Your task to perform on an android device: install app "Truecaller" Image 0: 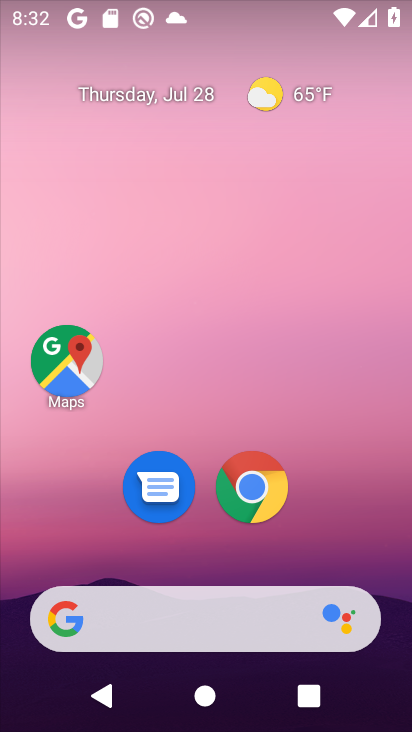
Step 0: drag from (288, 593) to (273, 310)
Your task to perform on an android device: install app "Truecaller" Image 1: 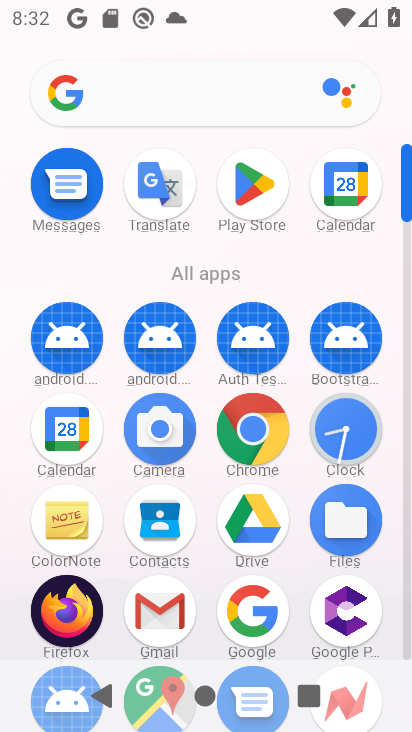
Step 1: click (253, 196)
Your task to perform on an android device: install app "Truecaller" Image 2: 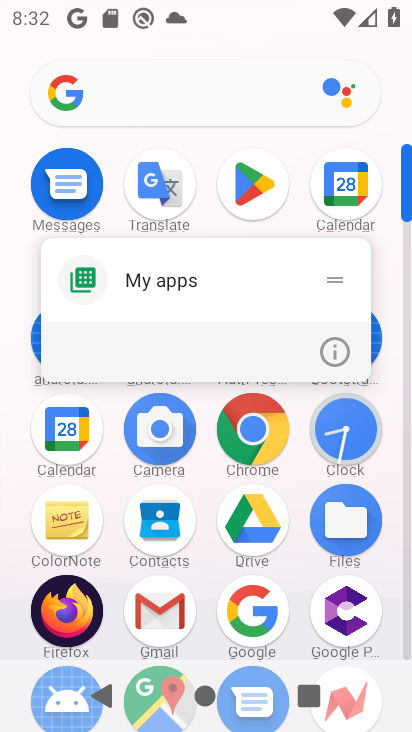
Step 2: click (248, 206)
Your task to perform on an android device: install app "Truecaller" Image 3: 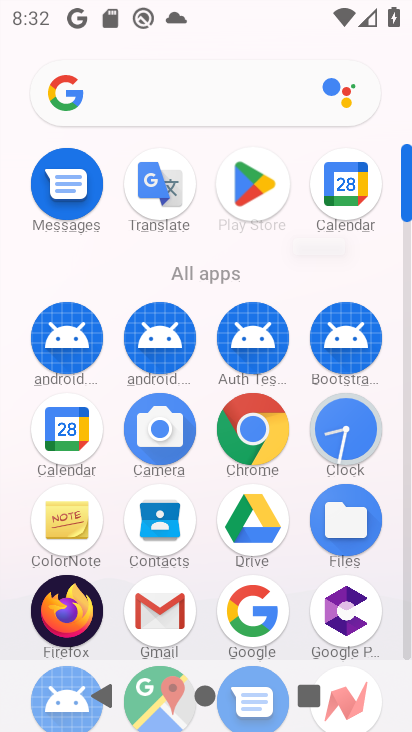
Step 3: click (248, 203)
Your task to perform on an android device: install app "Truecaller" Image 4: 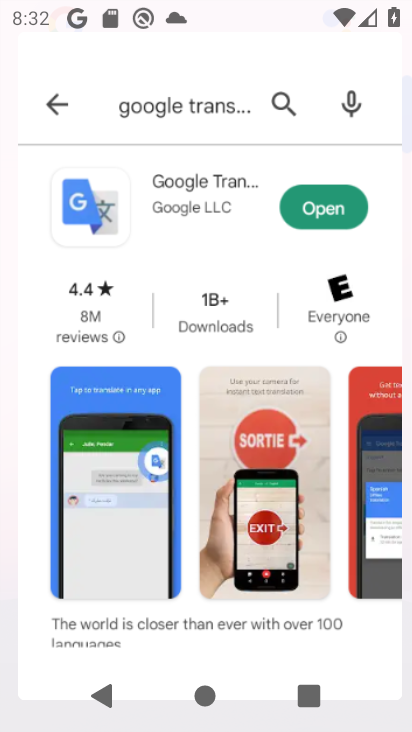
Step 4: click (248, 204)
Your task to perform on an android device: install app "Truecaller" Image 5: 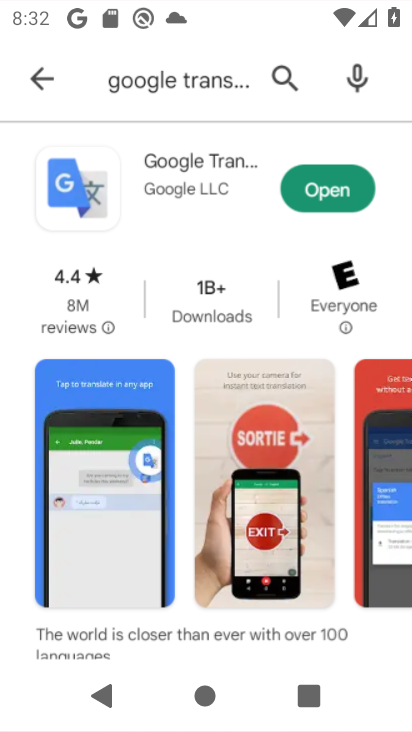
Step 5: click (248, 204)
Your task to perform on an android device: install app "Truecaller" Image 6: 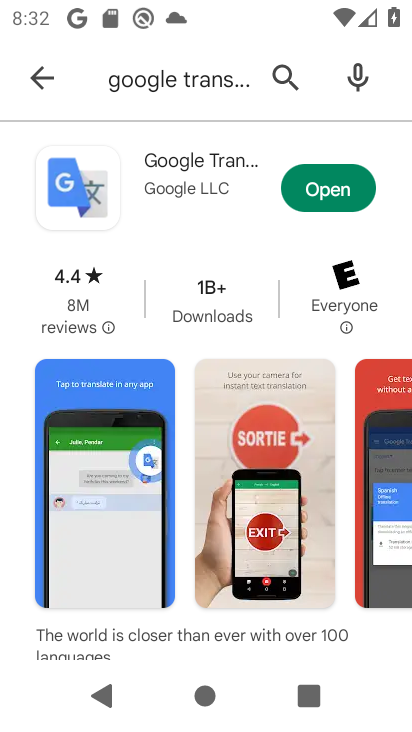
Step 6: click (248, 207)
Your task to perform on an android device: install app "Truecaller" Image 7: 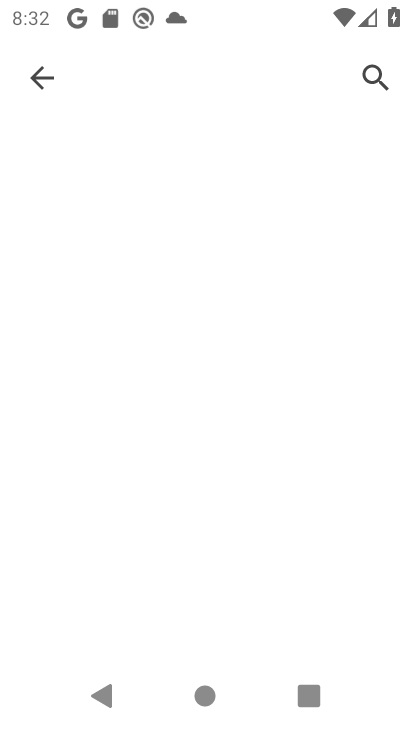
Step 7: click (34, 68)
Your task to perform on an android device: install app "Truecaller" Image 8: 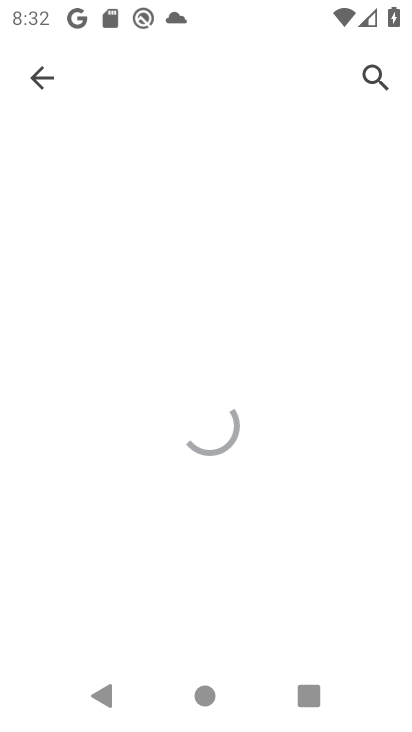
Step 8: click (33, 67)
Your task to perform on an android device: install app "Truecaller" Image 9: 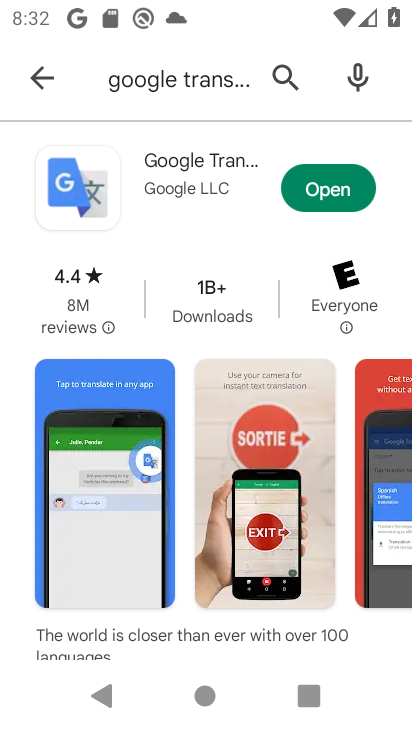
Step 9: click (103, 78)
Your task to perform on an android device: install app "Truecaller" Image 10: 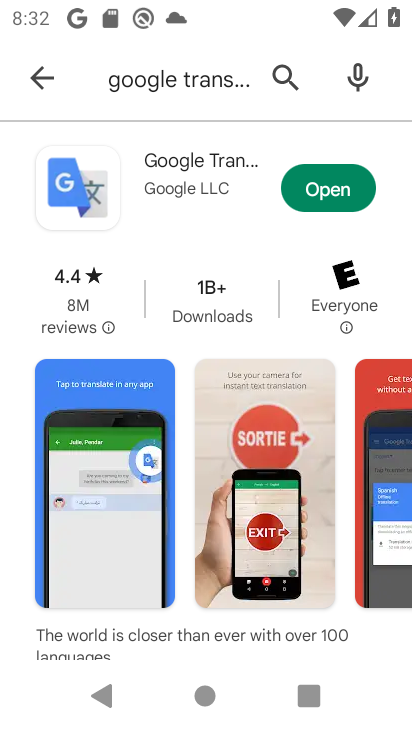
Step 10: click (112, 82)
Your task to perform on an android device: install app "Truecaller" Image 11: 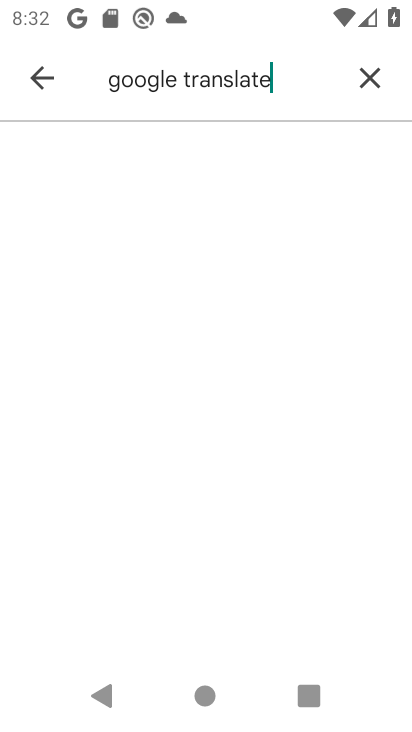
Step 11: click (113, 83)
Your task to perform on an android device: install app "Truecaller" Image 12: 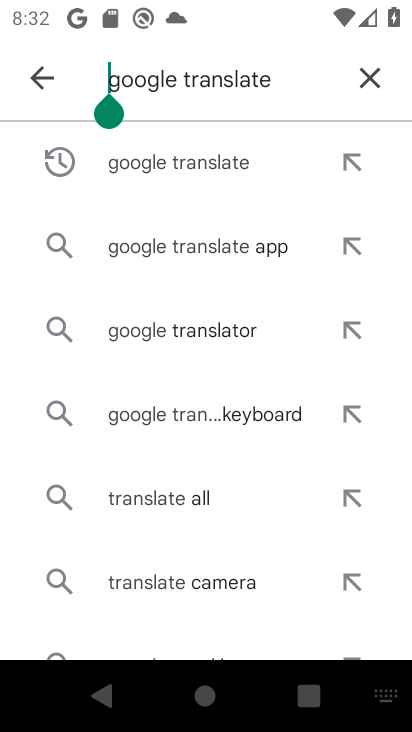
Step 12: click (362, 78)
Your task to perform on an android device: install app "Truecaller" Image 13: 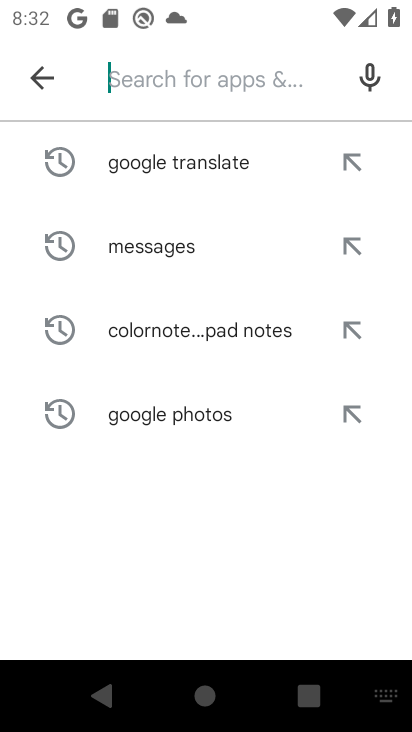
Step 13: type "truecaller"
Your task to perform on an android device: install app "Truecaller" Image 14: 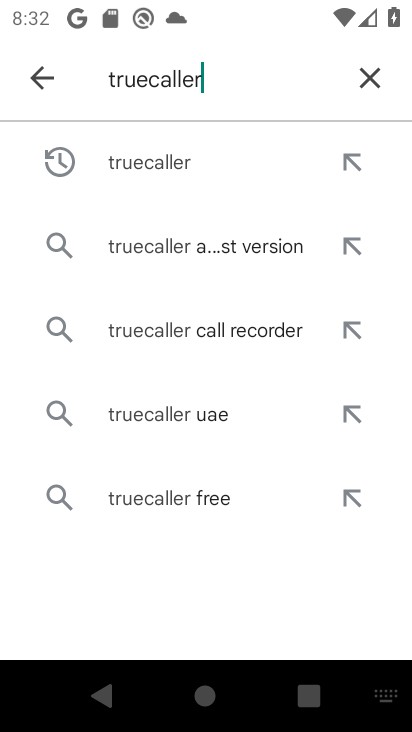
Step 14: click (339, 159)
Your task to perform on an android device: install app "Truecaller" Image 15: 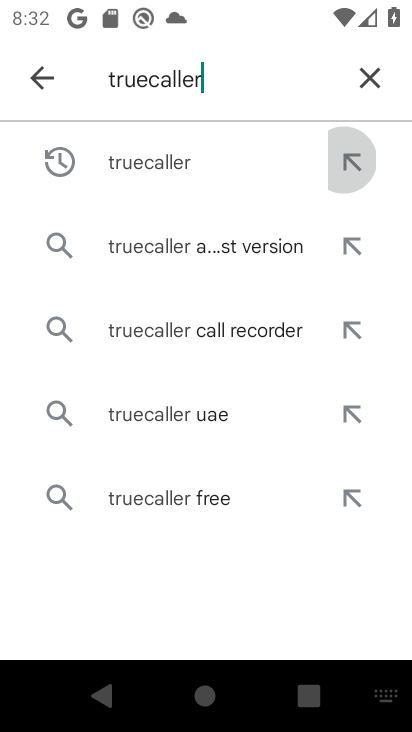
Step 15: click (339, 159)
Your task to perform on an android device: install app "Truecaller" Image 16: 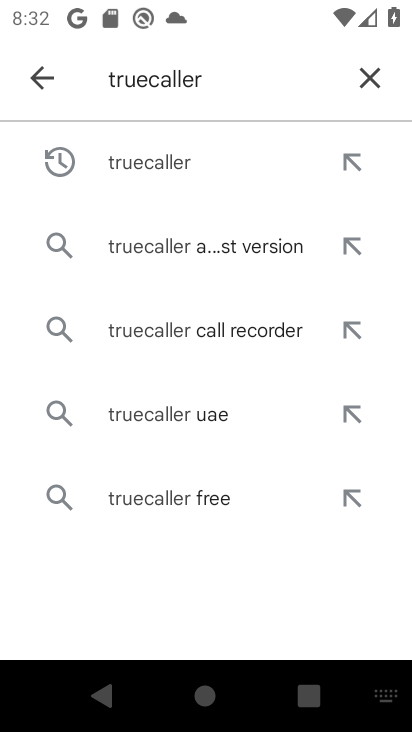
Step 16: click (156, 164)
Your task to perform on an android device: install app "Truecaller" Image 17: 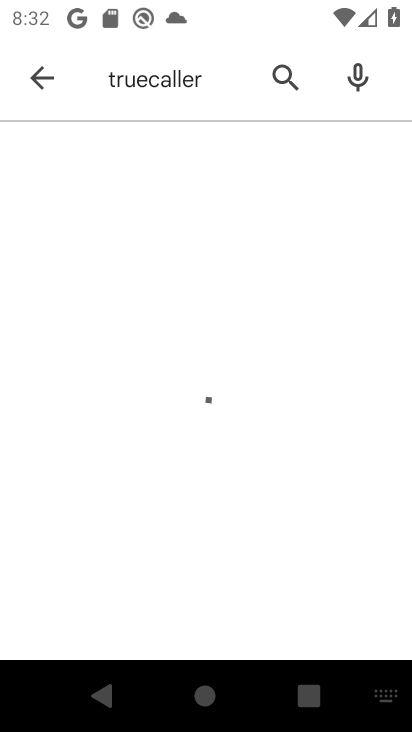
Step 17: click (156, 164)
Your task to perform on an android device: install app "Truecaller" Image 18: 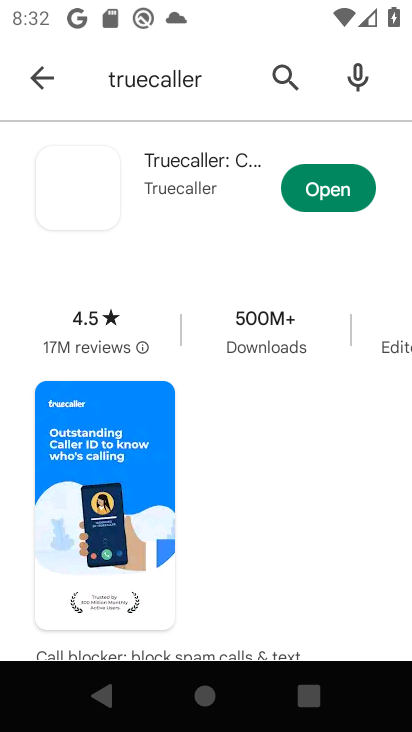
Step 18: click (156, 164)
Your task to perform on an android device: install app "Truecaller" Image 19: 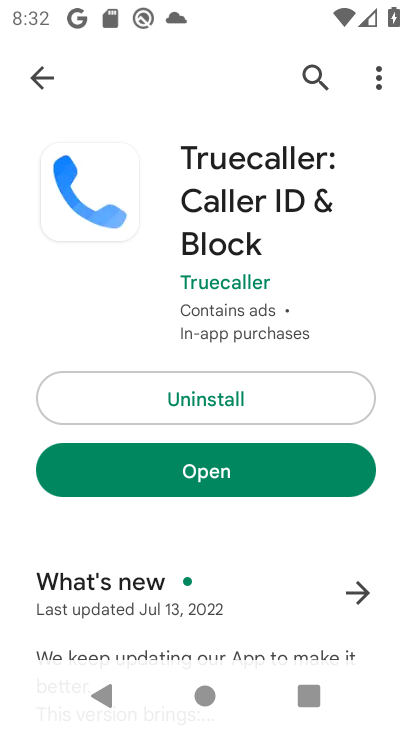
Step 19: click (156, 164)
Your task to perform on an android device: install app "Truecaller" Image 20: 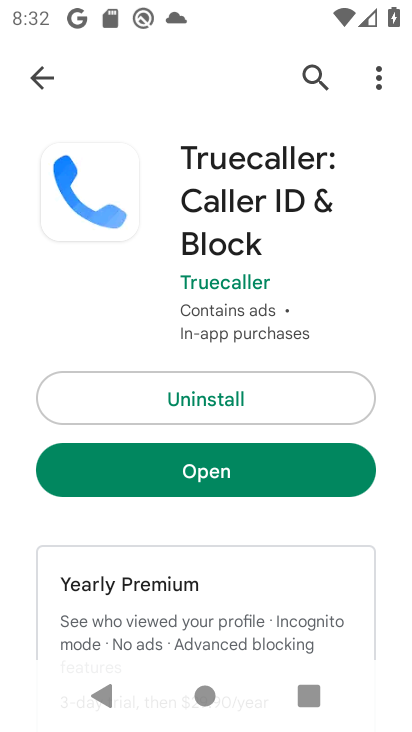
Step 20: click (236, 477)
Your task to perform on an android device: install app "Truecaller" Image 21: 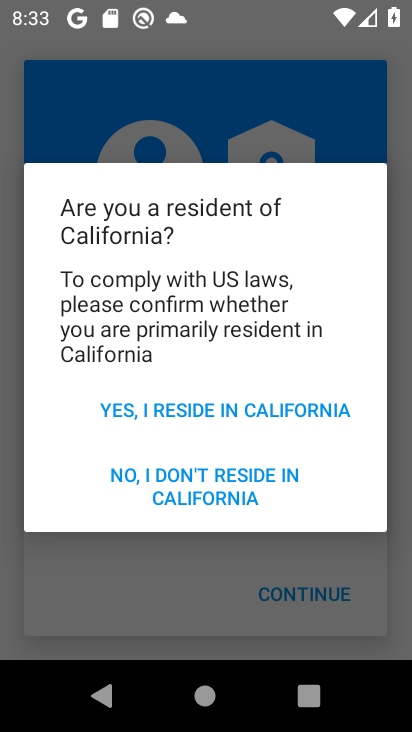
Step 21: click (210, 406)
Your task to perform on an android device: install app "Truecaller" Image 22: 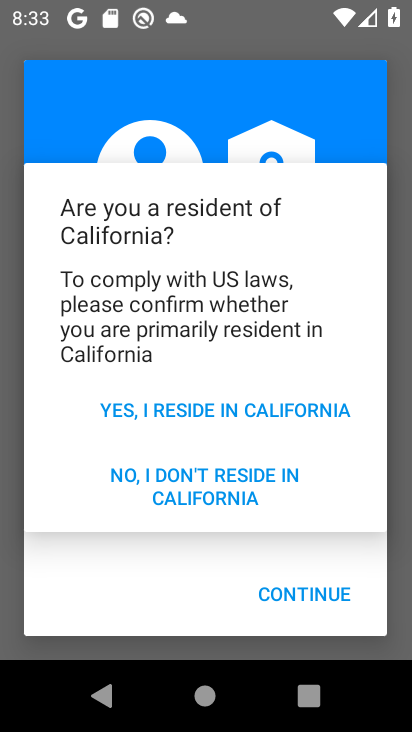
Step 22: click (195, 472)
Your task to perform on an android device: install app "Truecaller" Image 23: 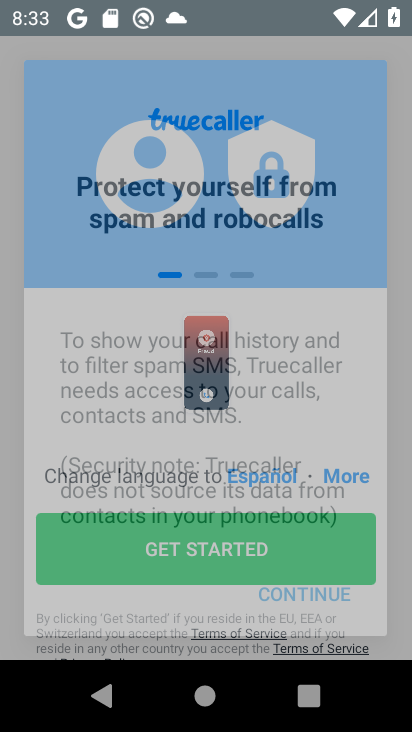
Step 23: click (308, 115)
Your task to perform on an android device: install app "Truecaller" Image 24: 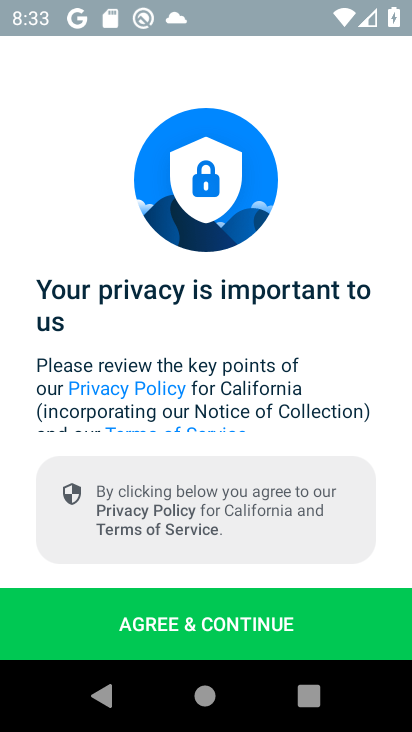
Step 24: press back button
Your task to perform on an android device: install app "Truecaller" Image 25: 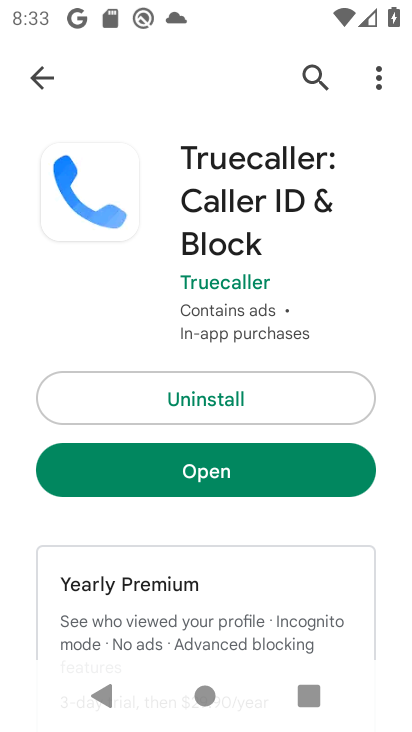
Step 25: click (219, 465)
Your task to perform on an android device: install app "Truecaller" Image 26: 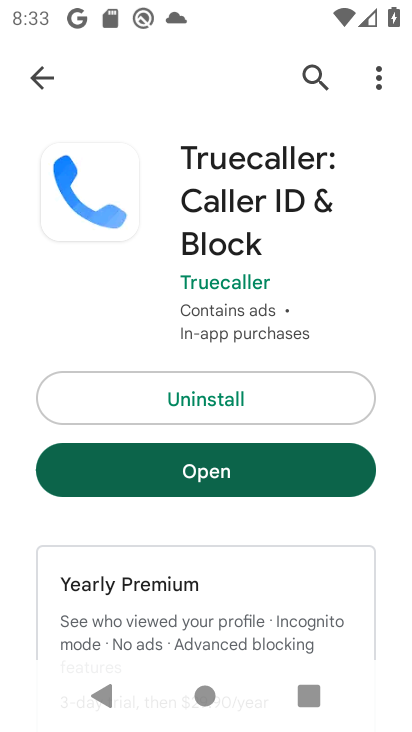
Step 26: click (228, 469)
Your task to perform on an android device: install app "Truecaller" Image 27: 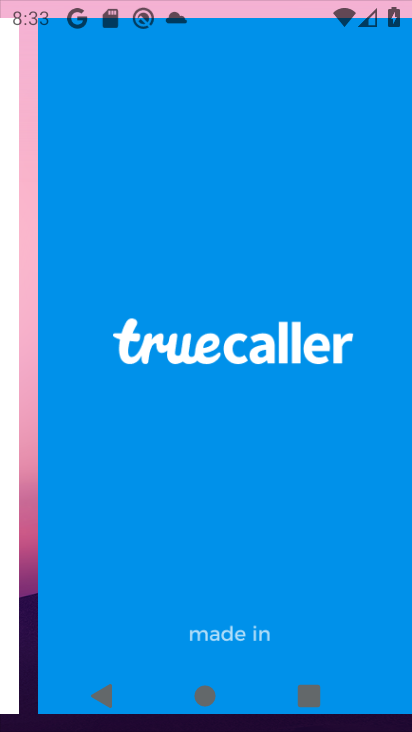
Step 27: click (227, 470)
Your task to perform on an android device: install app "Truecaller" Image 28: 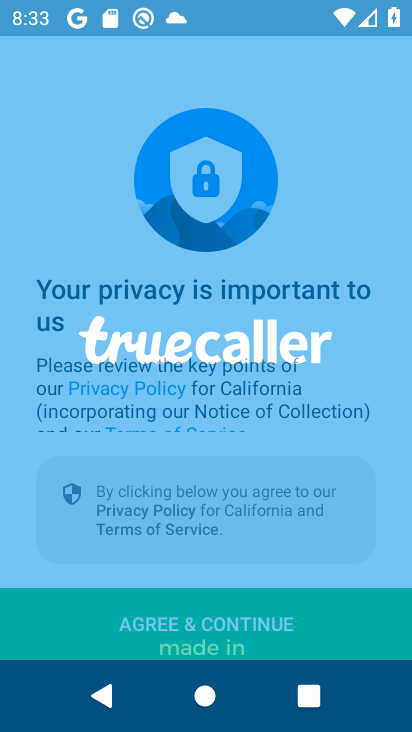
Step 28: click (228, 471)
Your task to perform on an android device: install app "Truecaller" Image 29: 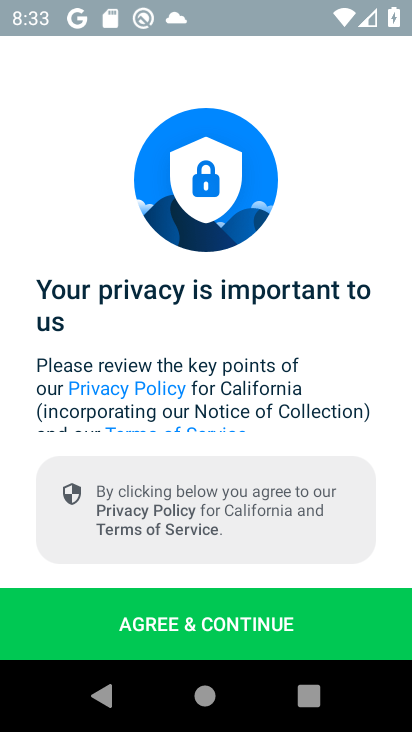
Step 29: click (202, 626)
Your task to perform on an android device: install app "Truecaller" Image 30: 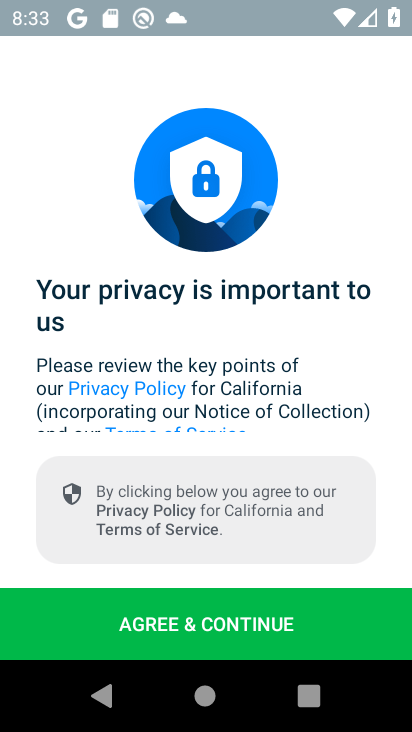
Step 30: click (206, 623)
Your task to perform on an android device: install app "Truecaller" Image 31: 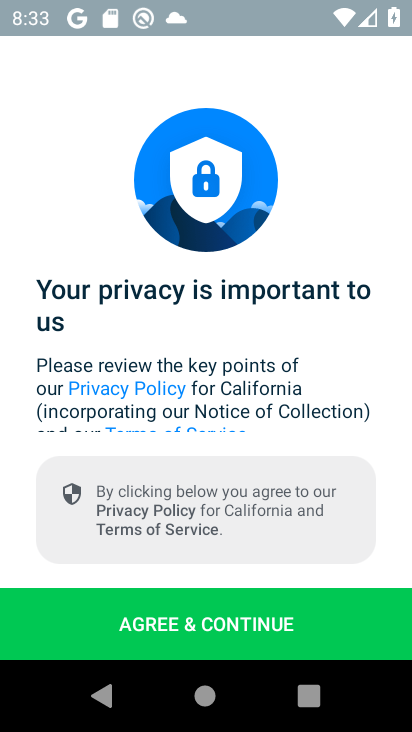
Step 31: click (208, 624)
Your task to perform on an android device: install app "Truecaller" Image 32: 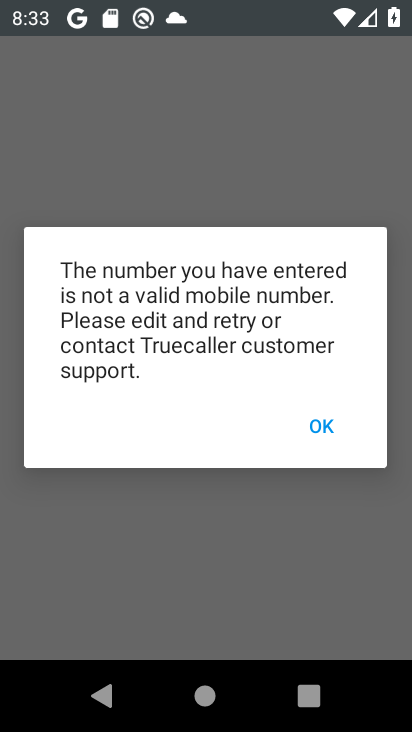
Step 32: click (329, 423)
Your task to perform on an android device: install app "Truecaller" Image 33: 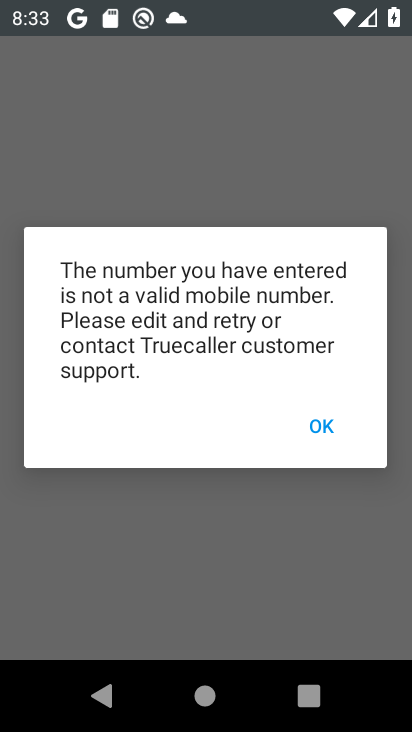
Step 33: click (327, 423)
Your task to perform on an android device: install app "Truecaller" Image 34: 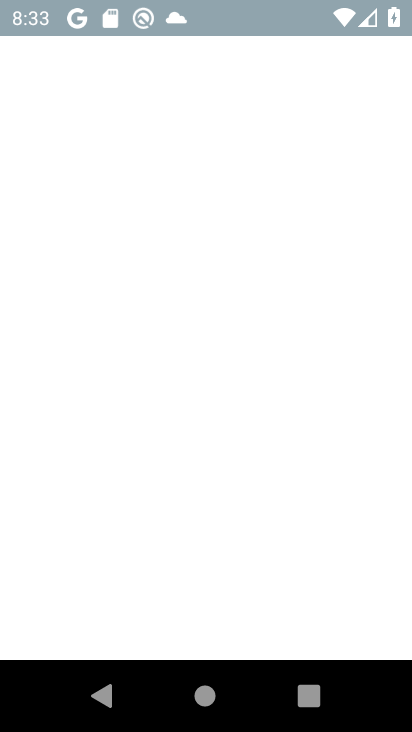
Step 34: click (326, 424)
Your task to perform on an android device: install app "Truecaller" Image 35: 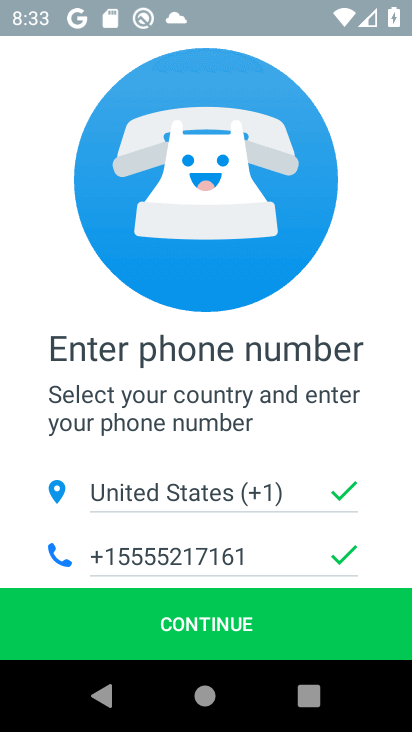
Step 35: click (233, 618)
Your task to perform on an android device: install app "Truecaller" Image 36: 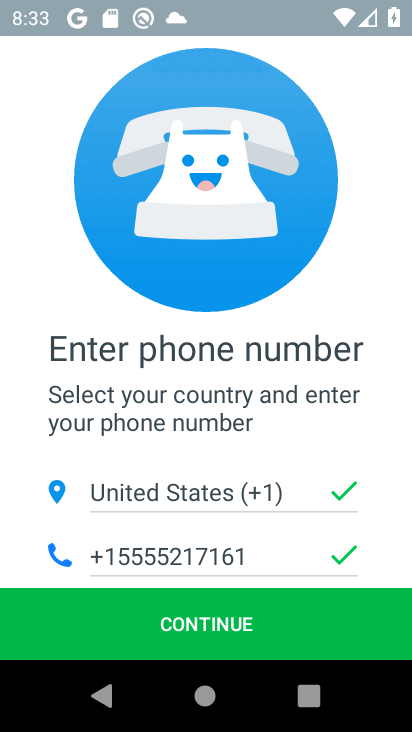
Step 36: click (231, 619)
Your task to perform on an android device: install app "Truecaller" Image 37: 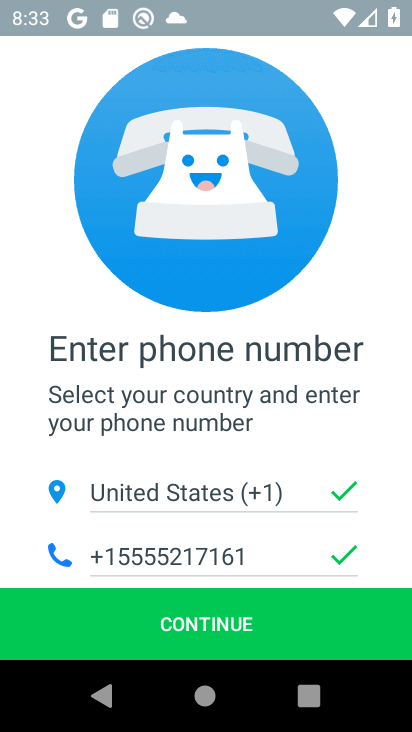
Step 37: click (269, 623)
Your task to perform on an android device: install app "Truecaller" Image 38: 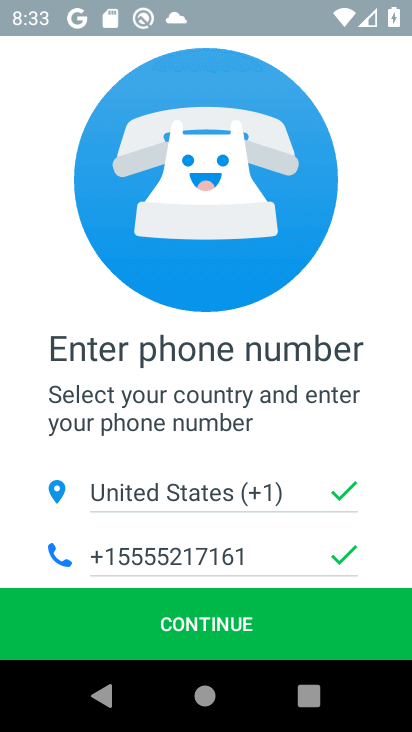
Step 38: click (268, 622)
Your task to perform on an android device: install app "Truecaller" Image 39: 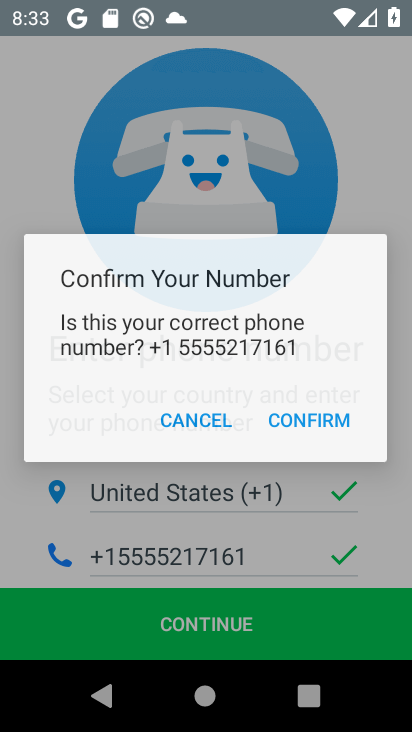
Step 39: click (268, 623)
Your task to perform on an android device: install app "Truecaller" Image 40: 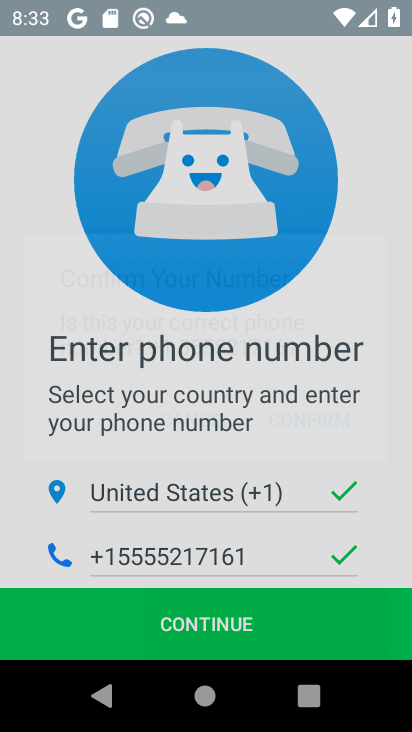
Step 40: click (268, 623)
Your task to perform on an android device: install app "Truecaller" Image 41: 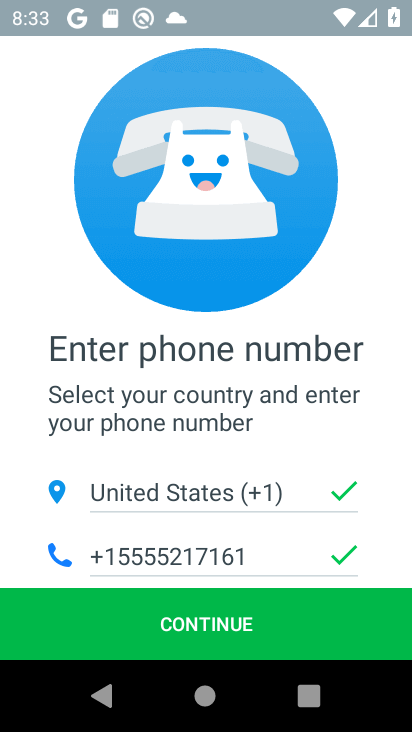
Step 41: click (268, 624)
Your task to perform on an android device: install app "Truecaller" Image 42: 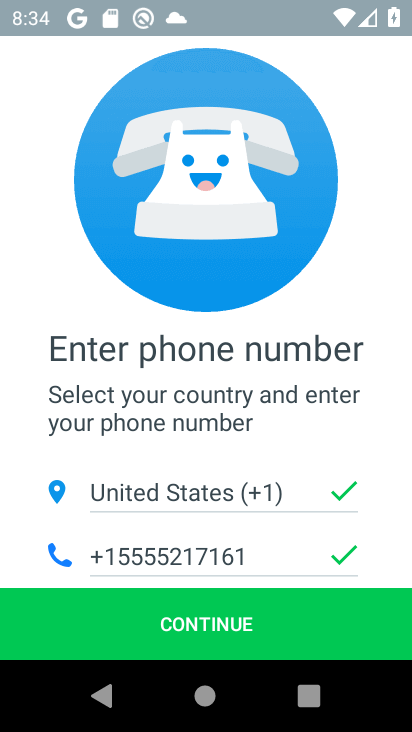
Step 42: click (216, 620)
Your task to perform on an android device: install app "Truecaller" Image 43: 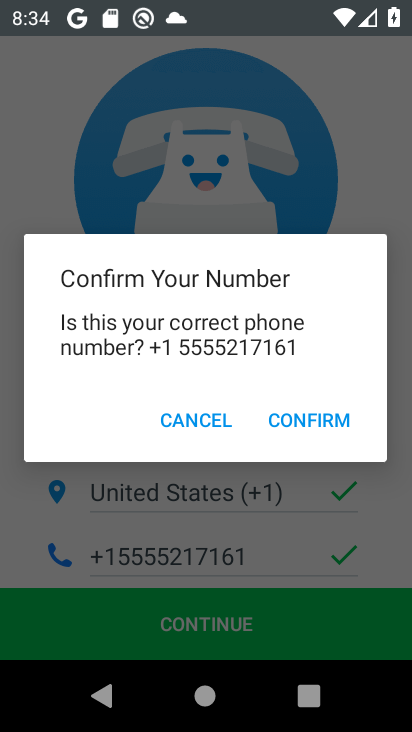
Step 43: click (310, 413)
Your task to perform on an android device: install app "Truecaller" Image 44: 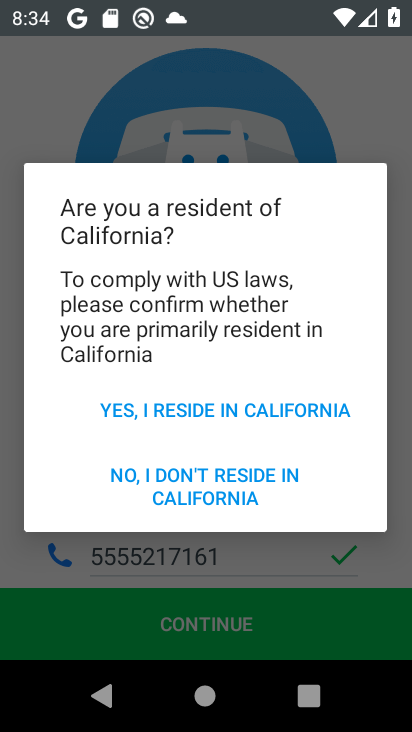
Step 44: click (230, 484)
Your task to perform on an android device: install app "Truecaller" Image 45: 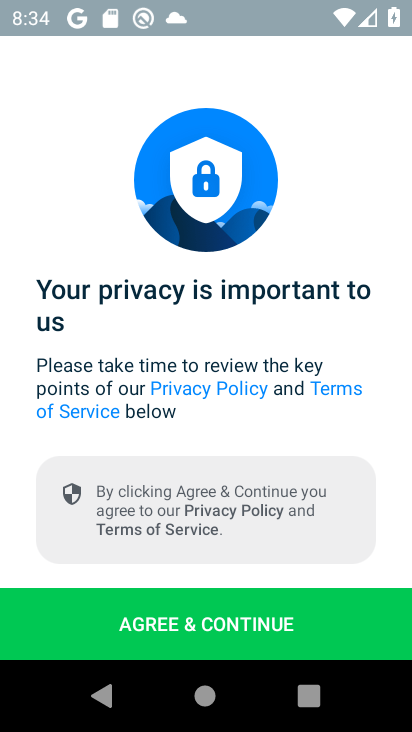
Step 45: click (257, 619)
Your task to perform on an android device: install app "Truecaller" Image 46: 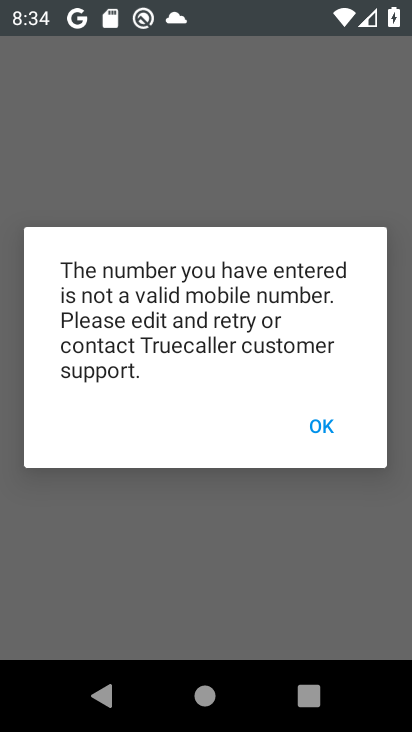
Step 46: click (321, 419)
Your task to perform on an android device: install app "Truecaller" Image 47: 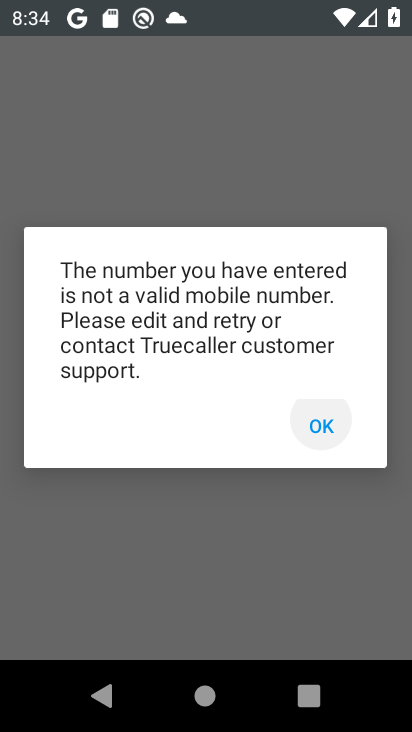
Step 47: click (321, 422)
Your task to perform on an android device: install app "Truecaller" Image 48: 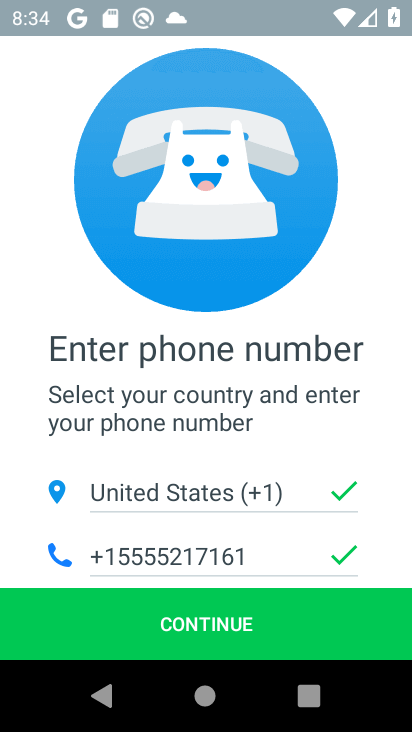
Step 48: task complete